Your task to perform on an android device: turn off notifications in google photos Image 0: 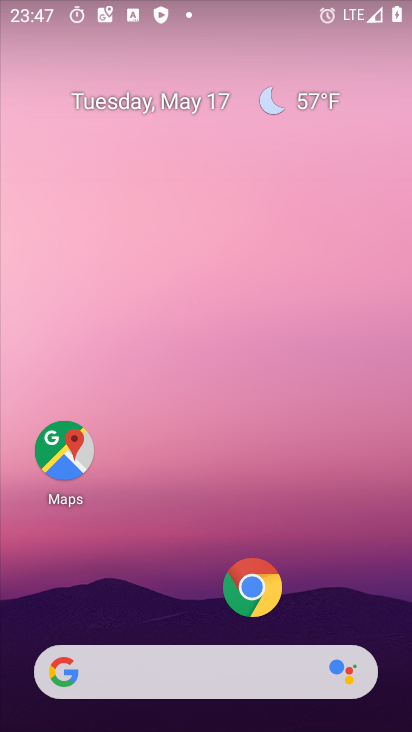
Step 0: drag from (80, 550) to (382, 88)
Your task to perform on an android device: turn off notifications in google photos Image 1: 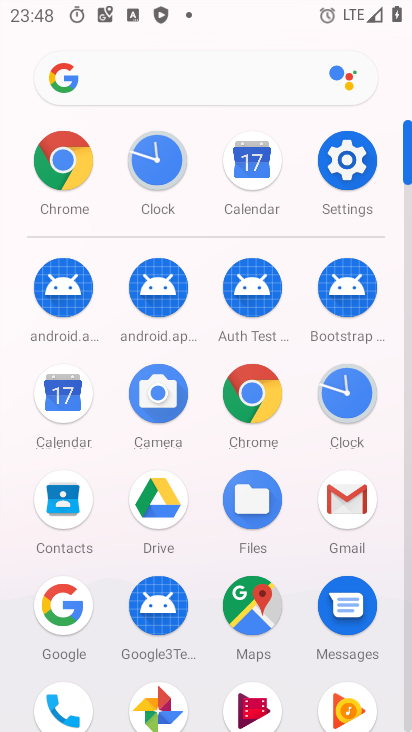
Step 1: click (158, 690)
Your task to perform on an android device: turn off notifications in google photos Image 2: 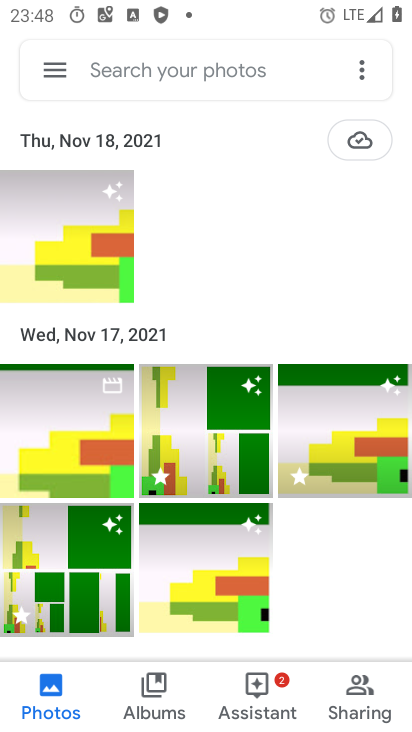
Step 2: click (49, 76)
Your task to perform on an android device: turn off notifications in google photos Image 3: 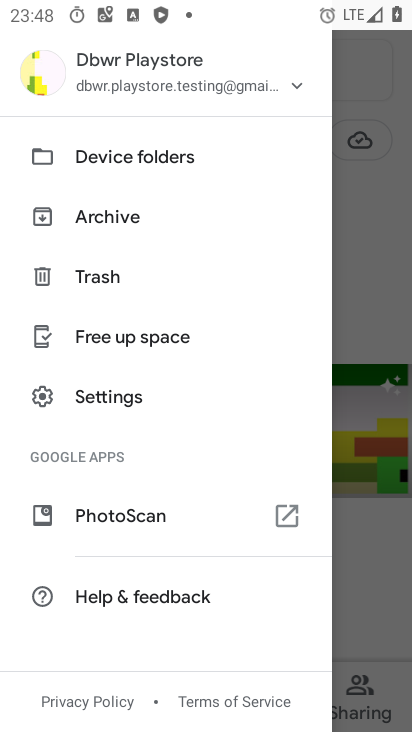
Step 3: click (134, 389)
Your task to perform on an android device: turn off notifications in google photos Image 4: 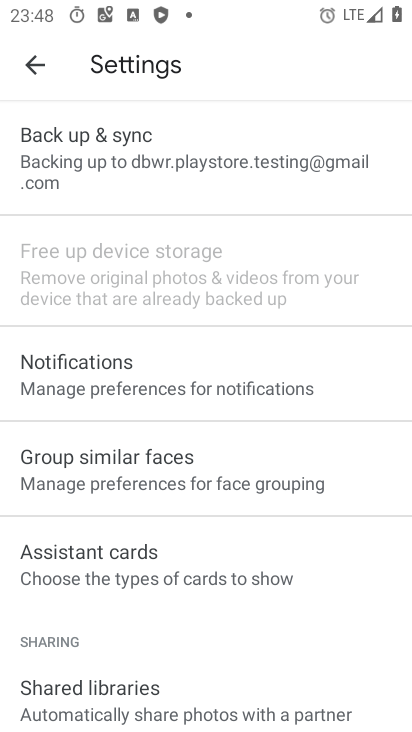
Step 4: click (159, 389)
Your task to perform on an android device: turn off notifications in google photos Image 5: 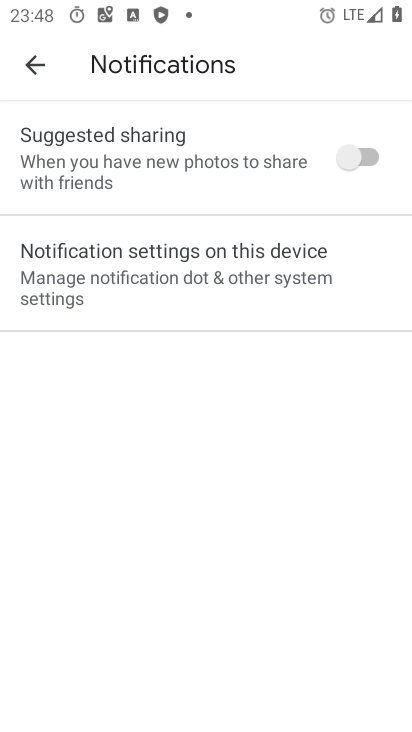
Step 5: click (334, 276)
Your task to perform on an android device: turn off notifications in google photos Image 6: 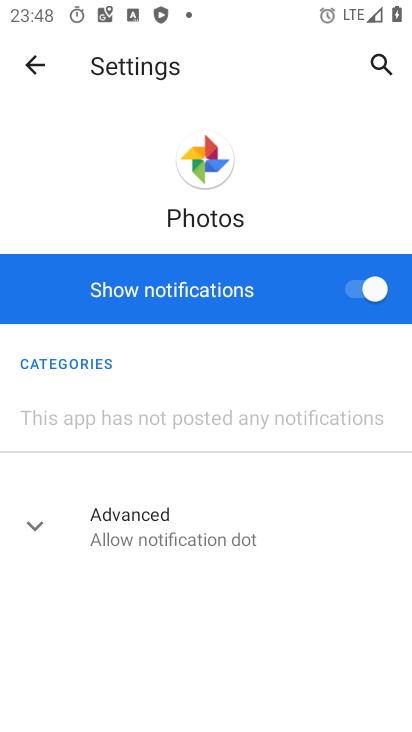
Step 6: click (367, 287)
Your task to perform on an android device: turn off notifications in google photos Image 7: 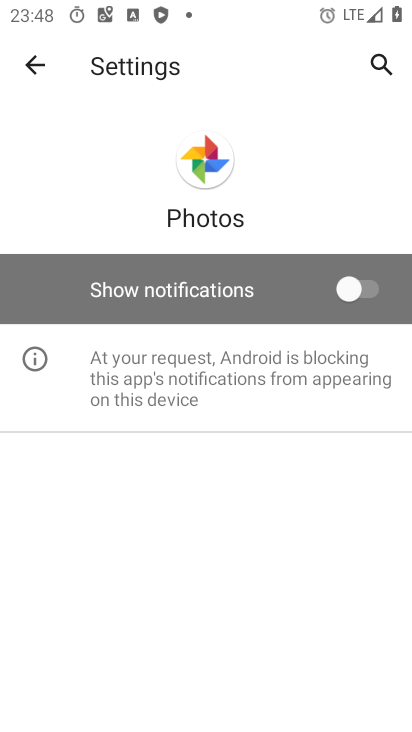
Step 7: task complete